Your task to perform on an android device: Open Amazon Image 0: 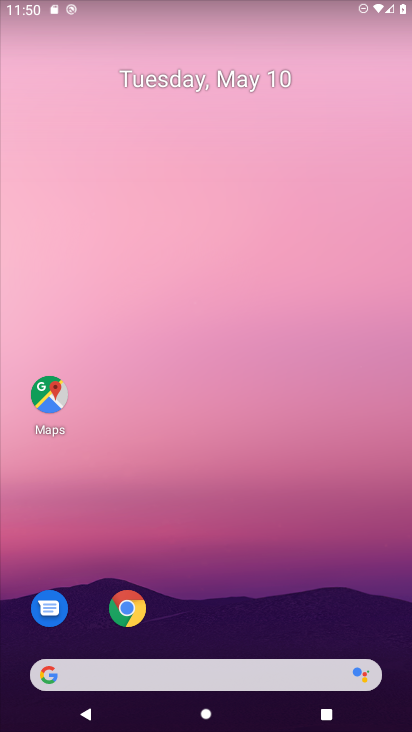
Step 0: click (269, 681)
Your task to perform on an android device: Open Amazon Image 1: 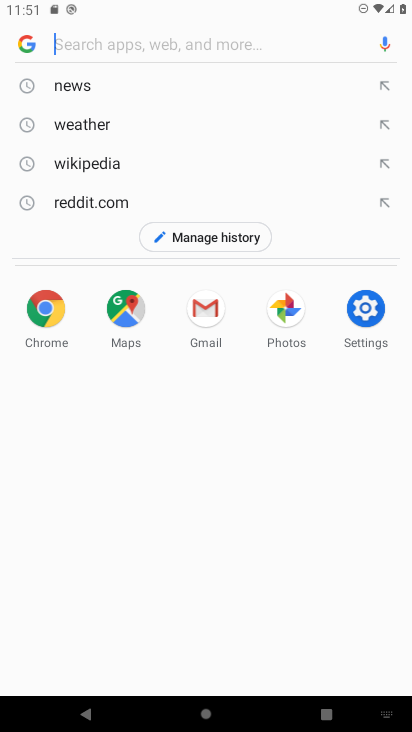
Step 1: type "amazon"
Your task to perform on an android device: Open Amazon Image 2: 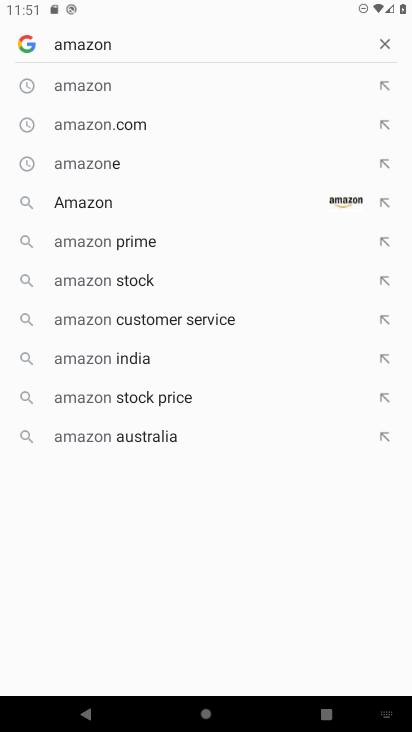
Step 2: click (97, 206)
Your task to perform on an android device: Open Amazon Image 3: 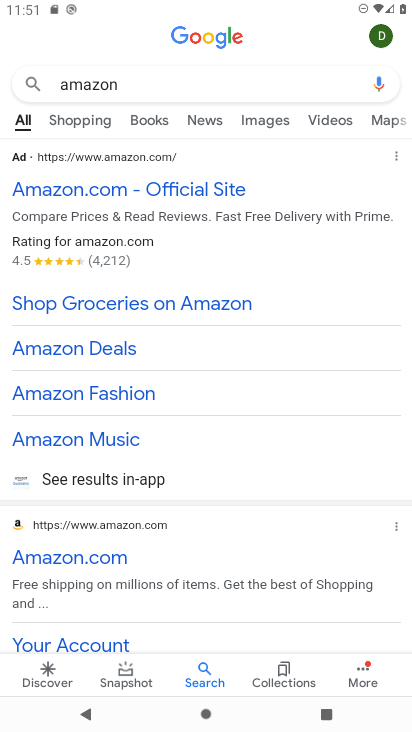
Step 3: click (102, 188)
Your task to perform on an android device: Open Amazon Image 4: 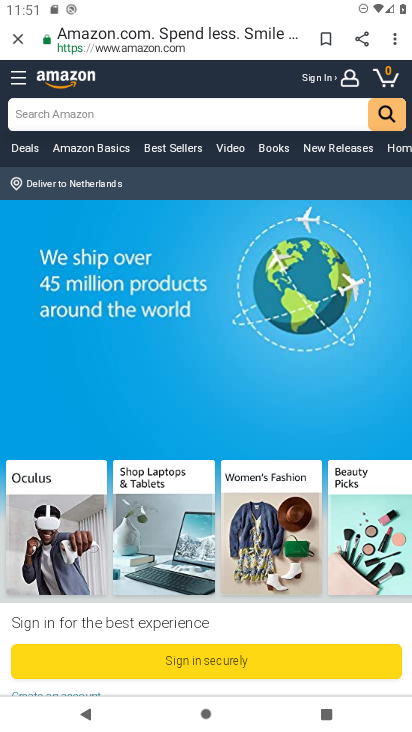
Step 4: task complete